Your task to perform on an android device: uninstall "File Manager" Image 0: 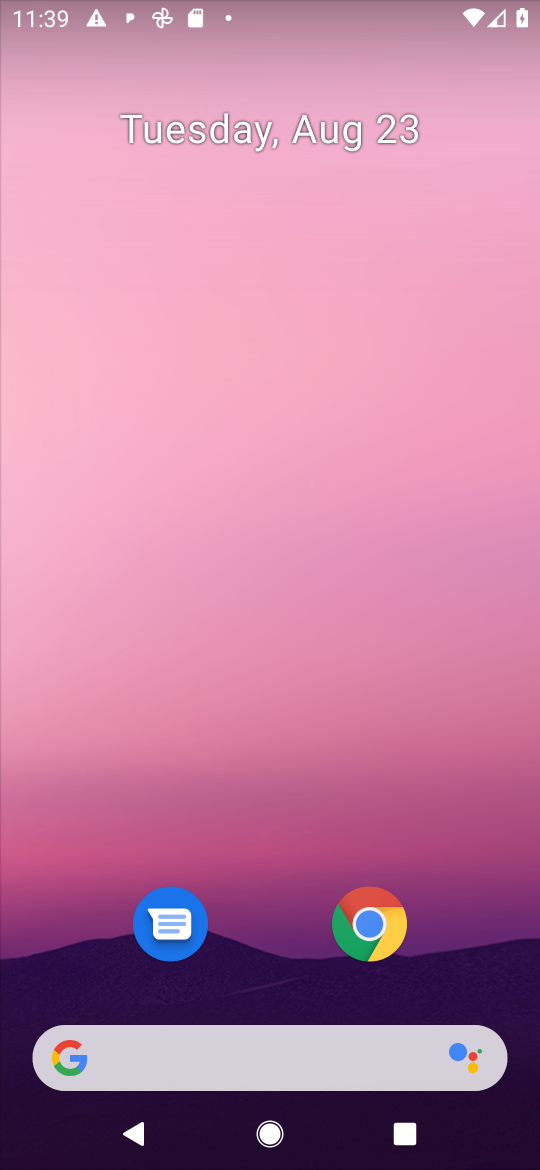
Step 0: press home button
Your task to perform on an android device: uninstall "File Manager" Image 1: 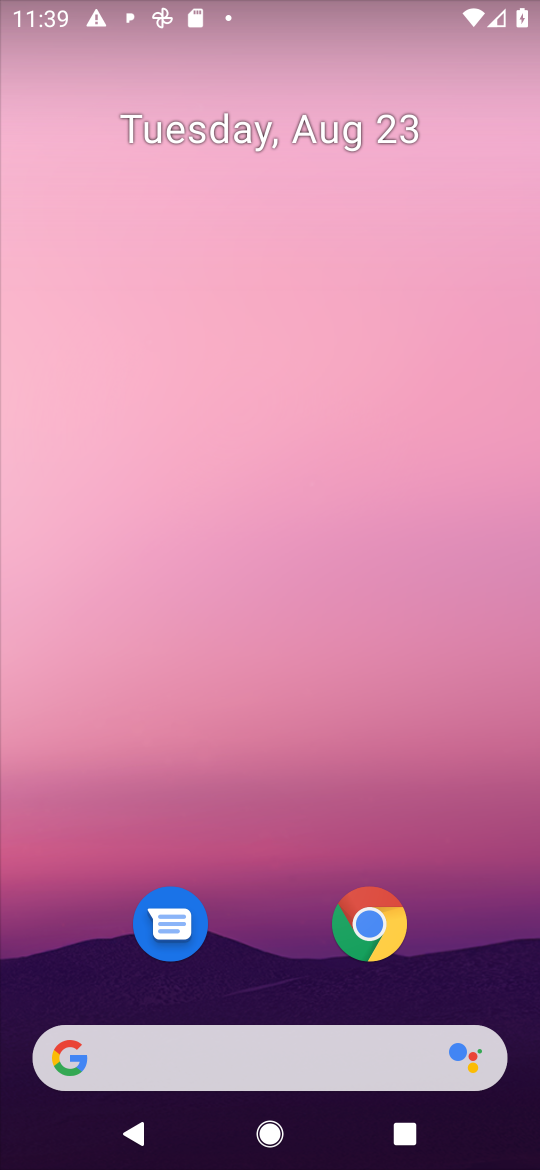
Step 1: drag from (472, 935) to (471, 36)
Your task to perform on an android device: uninstall "File Manager" Image 2: 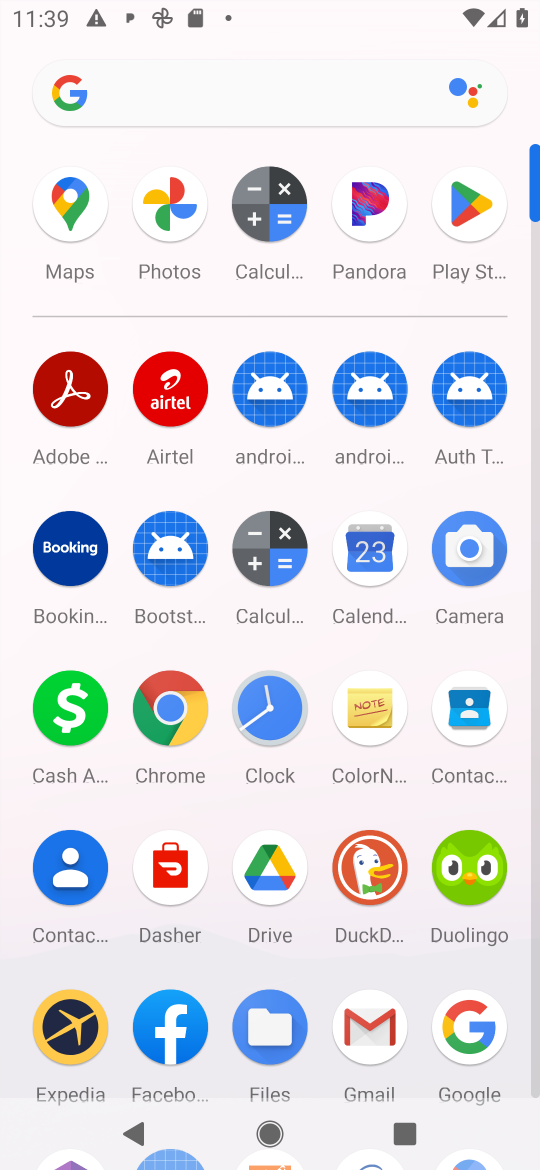
Step 2: click (470, 212)
Your task to perform on an android device: uninstall "File Manager" Image 3: 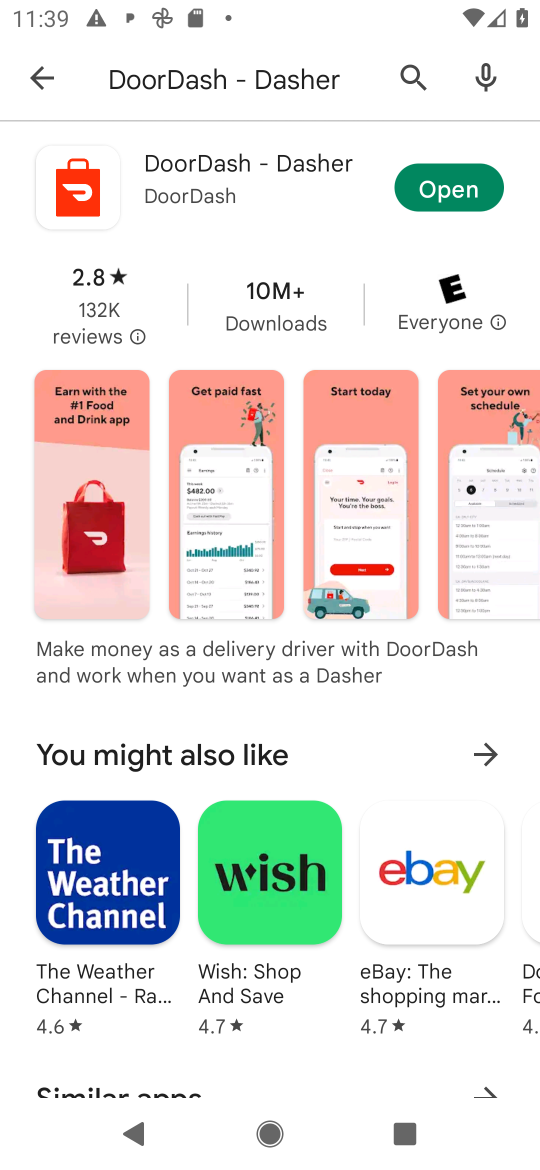
Step 3: press back button
Your task to perform on an android device: uninstall "File Manager" Image 4: 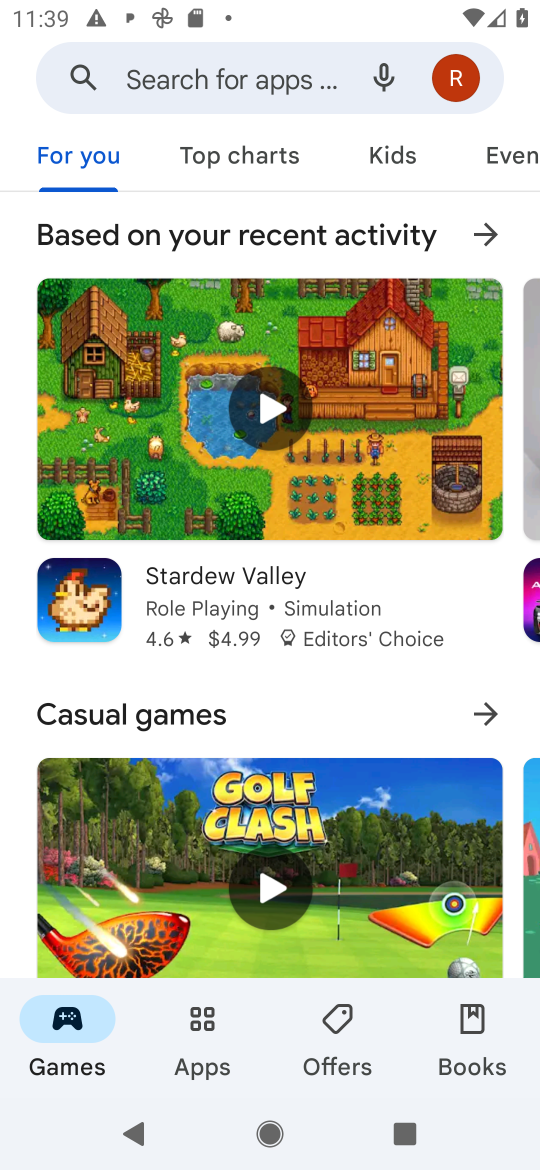
Step 4: click (224, 80)
Your task to perform on an android device: uninstall "File Manager" Image 5: 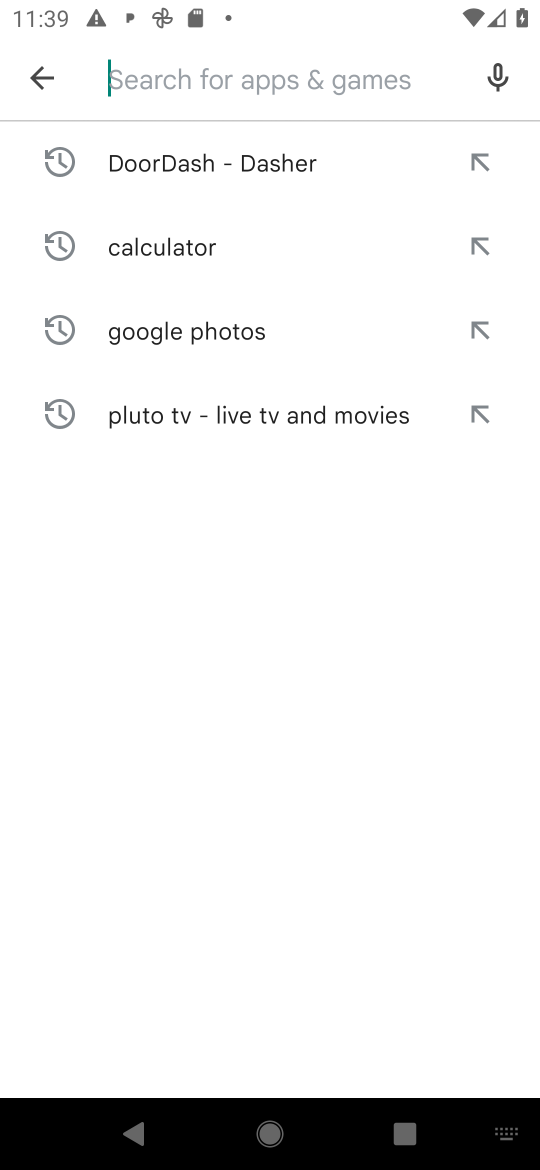
Step 5: press enter
Your task to perform on an android device: uninstall "File Manager" Image 6: 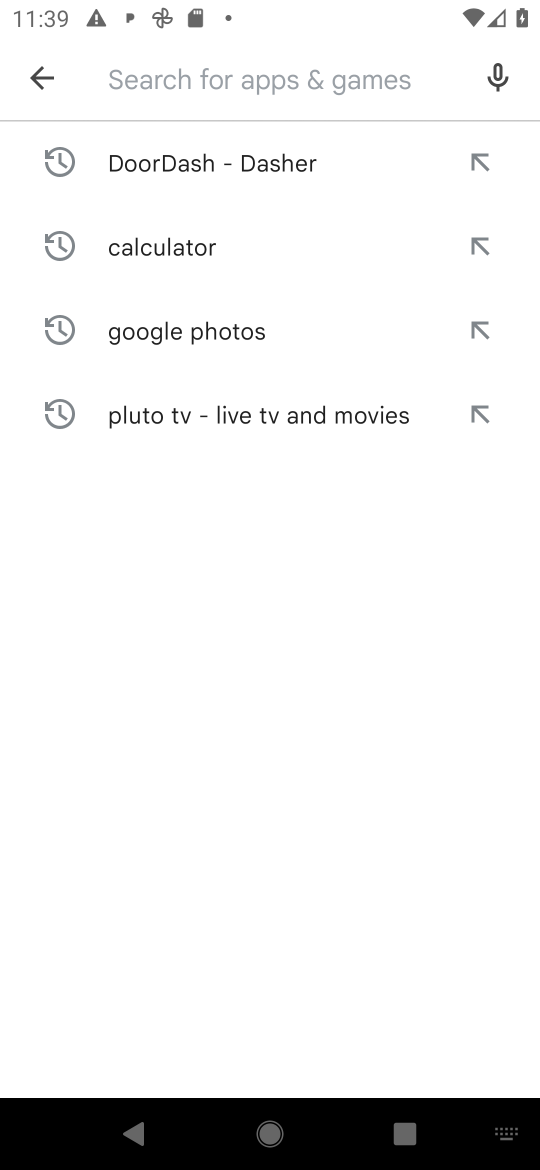
Step 6: type "File Manager"
Your task to perform on an android device: uninstall "File Manager" Image 7: 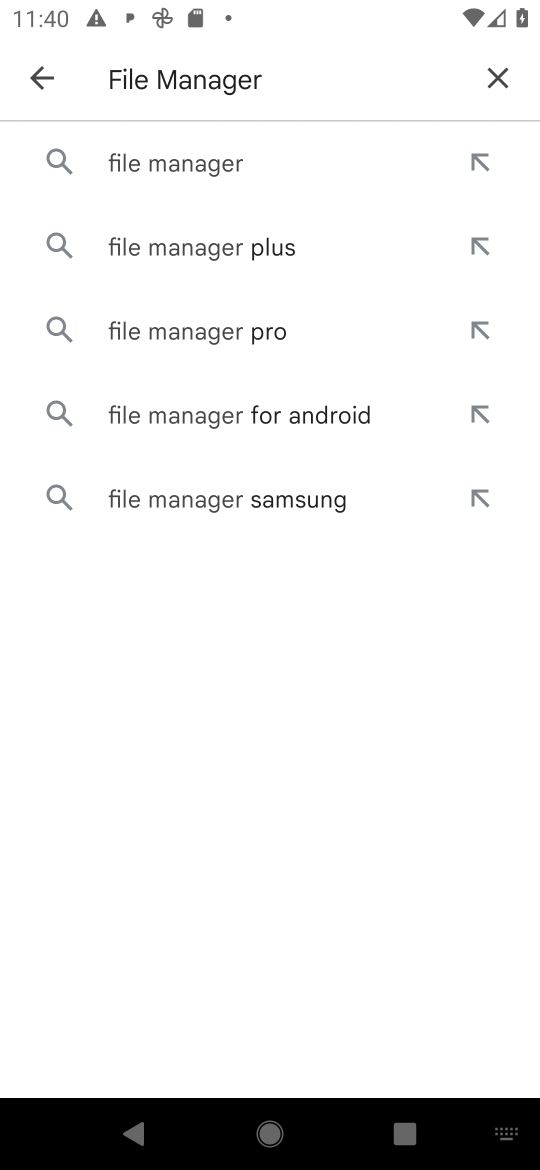
Step 7: click (267, 171)
Your task to perform on an android device: uninstall "File Manager" Image 8: 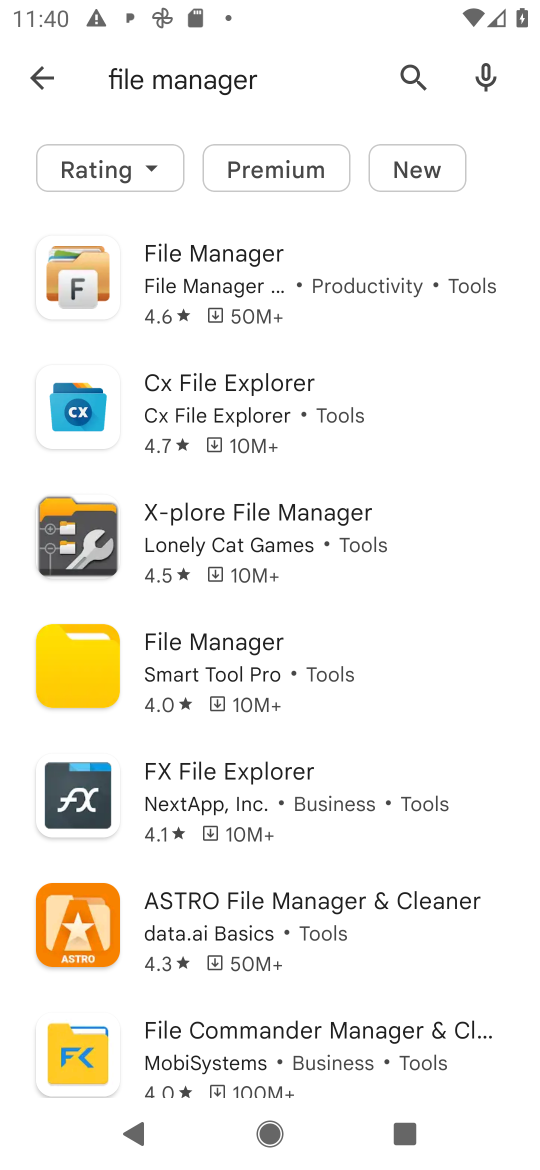
Step 8: task complete